Your task to perform on an android device: toggle pop-ups in chrome Image 0: 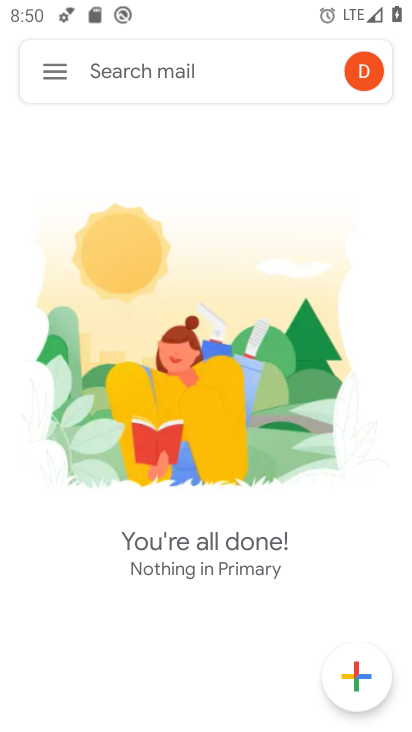
Step 0: press home button
Your task to perform on an android device: toggle pop-ups in chrome Image 1: 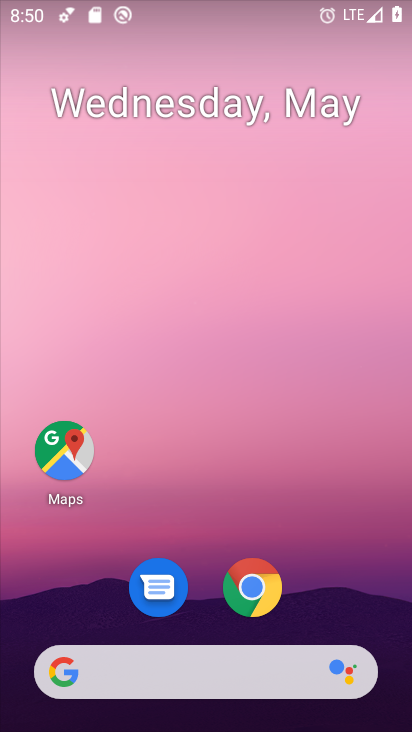
Step 1: click (264, 579)
Your task to perform on an android device: toggle pop-ups in chrome Image 2: 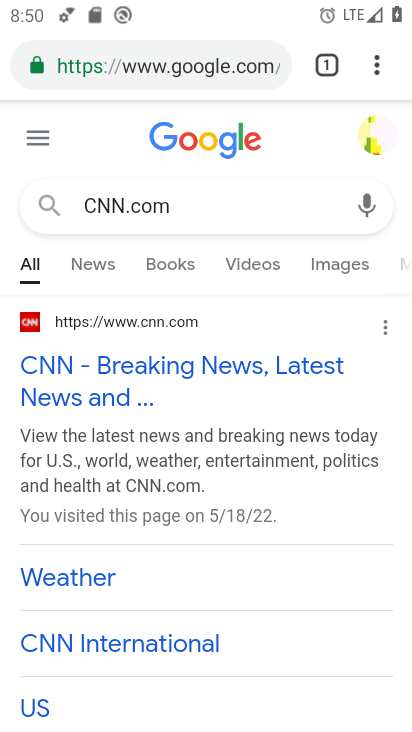
Step 2: click (378, 69)
Your task to perform on an android device: toggle pop-ups in chrome Image 3: 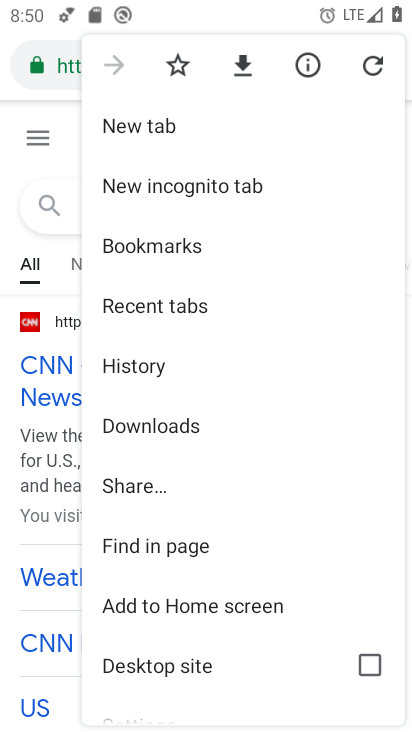
Step 3: drag from (174, 572) to (231, 241)
Your task to perform on an android device: toggle pop-ups in chrome Image 4: 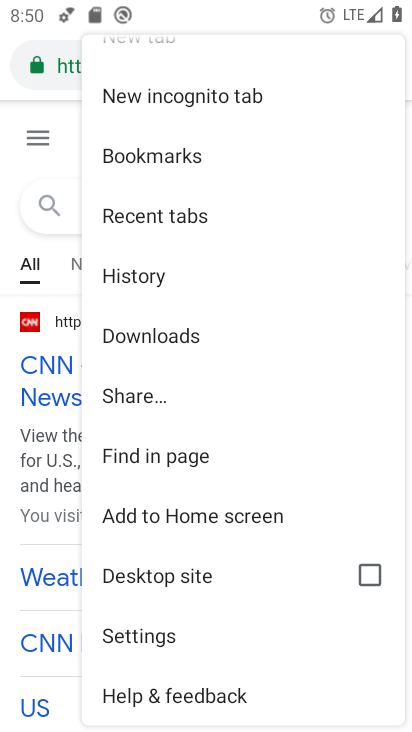
Step 4: click (154, 636)
Your task to perform on an android device: toggle pop-ups in chrome Image 5: 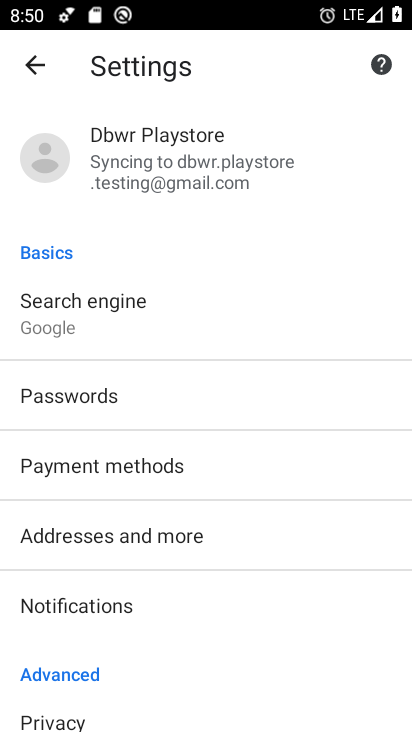
Step 5: drag from (139, 474) to (196, 270)
Your task to perform on an android device: toggle pop-ups in chrome Image 6: 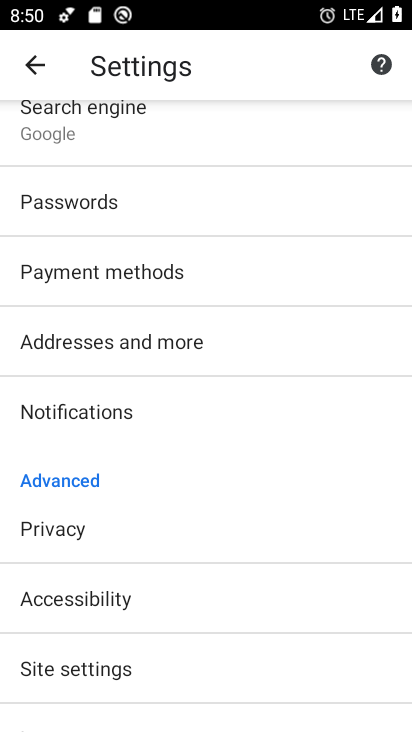
Step 6: drag from (130, 539) to (185, 303)
Your task to perform on an android device: toggle pop-ups in chrome Image 7: 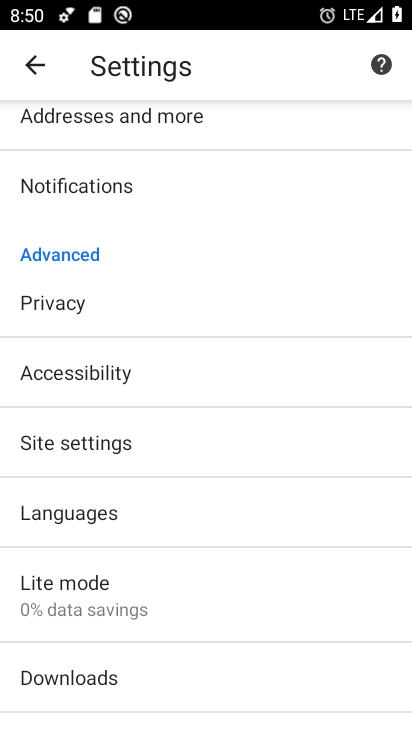
Step 7: click (116, 443)
Your task to perform on an android device: toggle pop-ups in chrome Image 8: 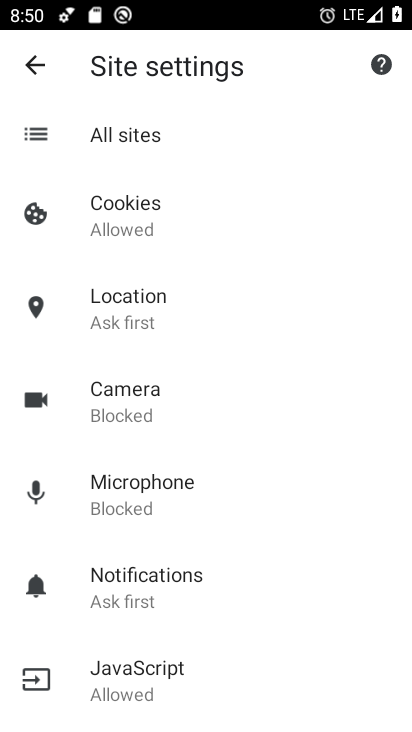
Step 8: drag from (97, 414) to (97, 236)
Your task to perform on an android device: toggle pop-ups in chrome Image 9: 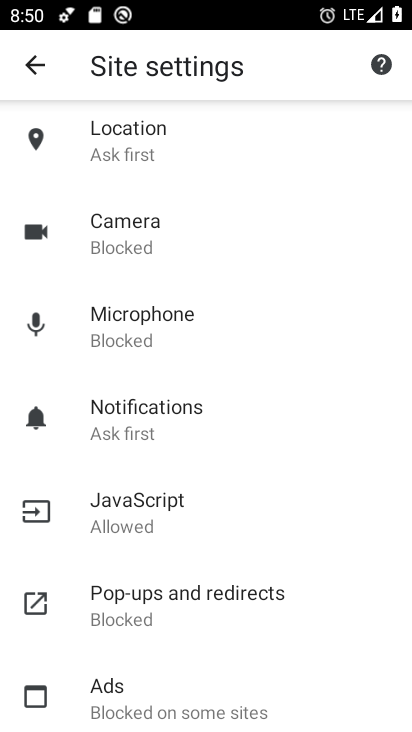
Step 9: click (130, 592)
Your task to perform on an android device: toggle pop-ups in chrome Image 10: 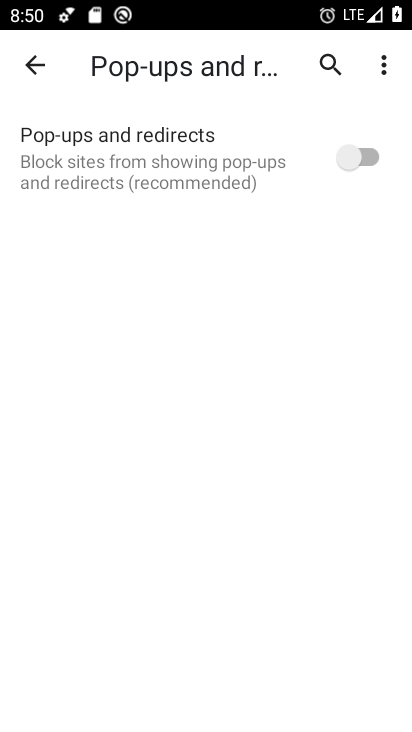
Step 10: click (369, 180)
Your task to perform on an android device: toggle pop-ups in chrome Image 11: 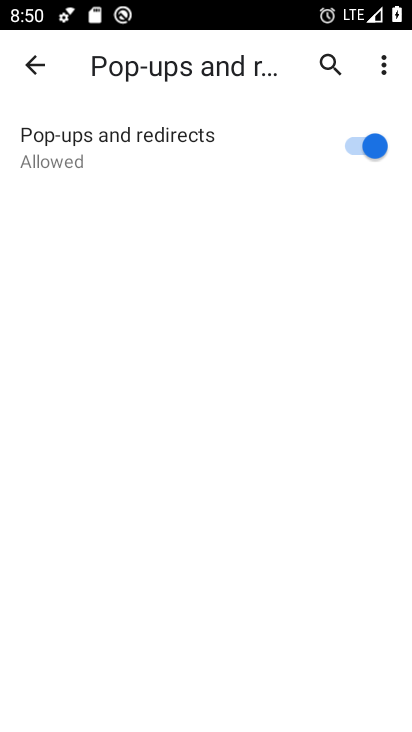
Step 11: task complete